Your task to perform on an android device: Open location settings Image 0: 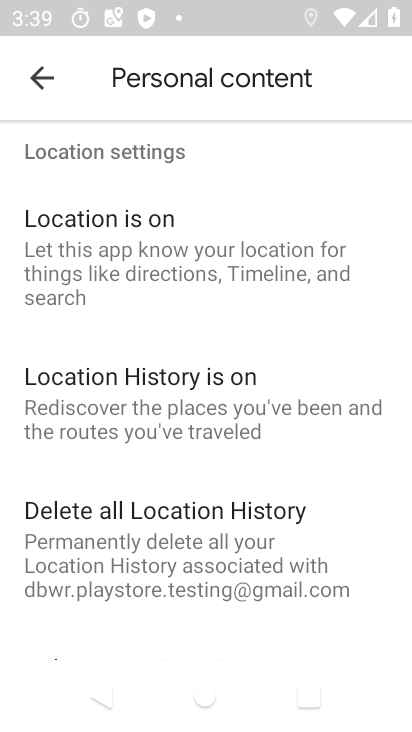
Step 0: drag from (279, 537) to (290, 264)
Your task to perform on an android device: Open location settings Image 1: 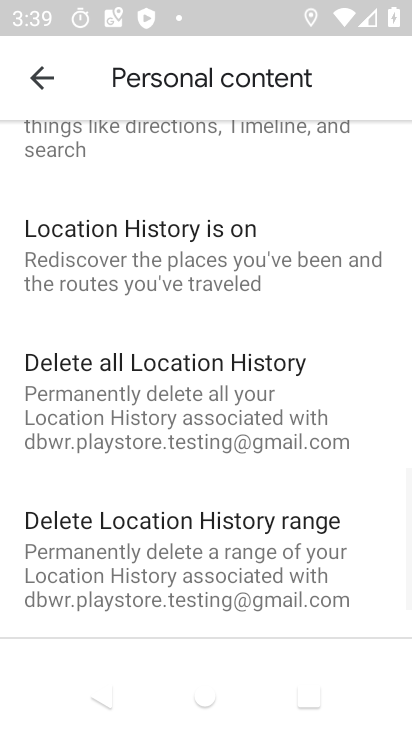
Step 1: task complete